Your task to perform on an android device: find which apps use the phone's location Image 0: 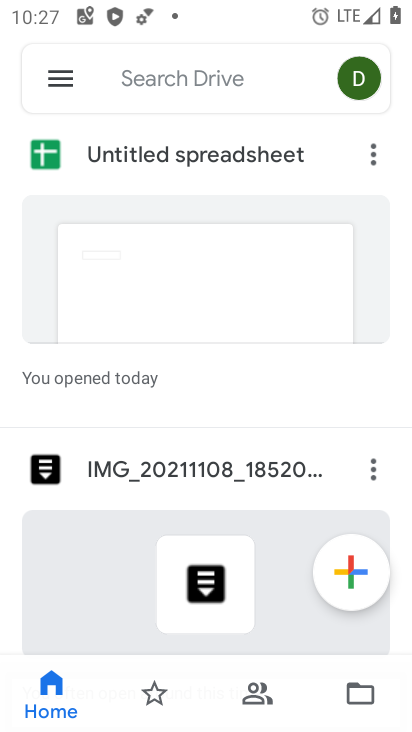
Step 0: press home button
Your task to perform on an android device: find which apps use the phone's location Image 1: 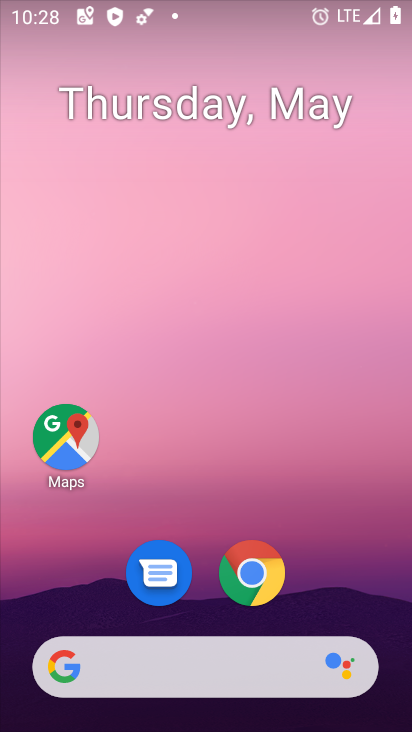
Step 1: drag from (214, 613) to (212, 168)
Your task to perform on an android device: find which apps use the phone's location Image 2: 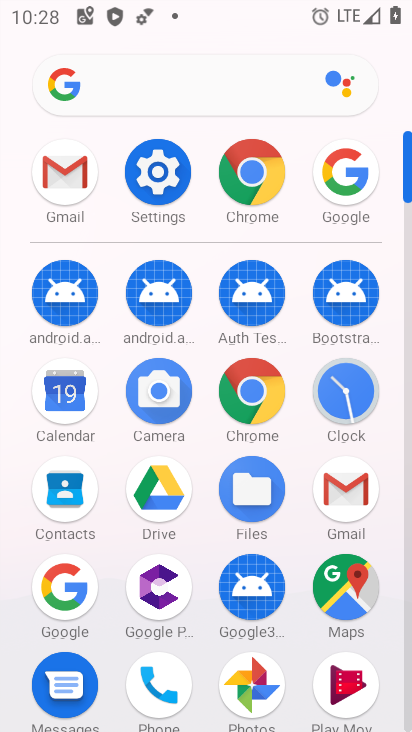
Step 2: click (177, 151)
Your task to perform on an android device: find which apps use the phone's location Image 3: 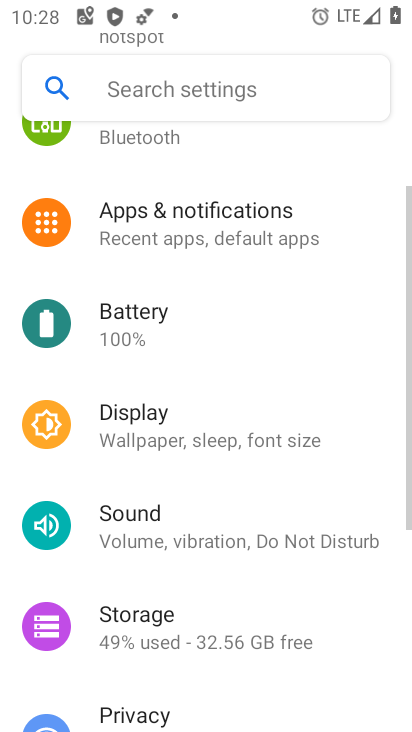
Step 3: drag from (160, 638) to (169, 336)
Your task to perform on an android device: find which apps use the phone's location Image 4: 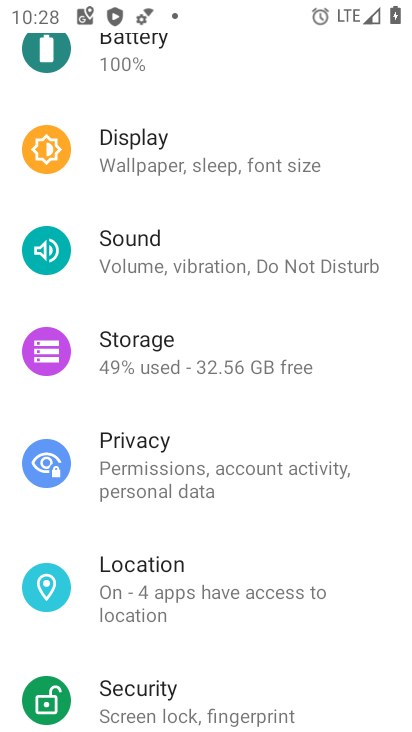
Step 4: click (120, 574)
Your task to perform on an android device: find which apps use the phone's location Image 5: 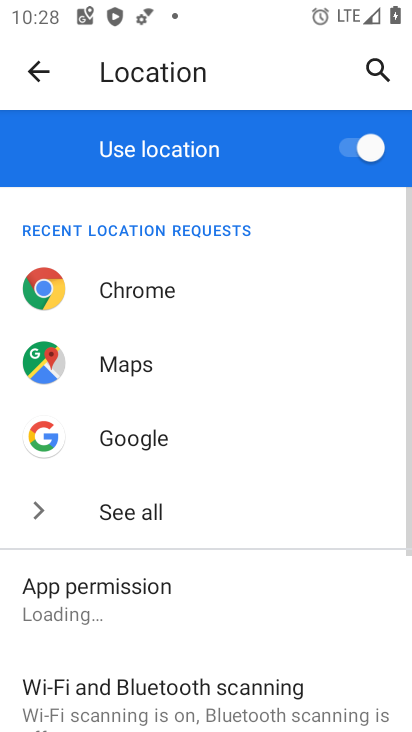
Step 5: click (158, 619)
Your task to perform on an android device: find which apps use the phone's location Image 6: 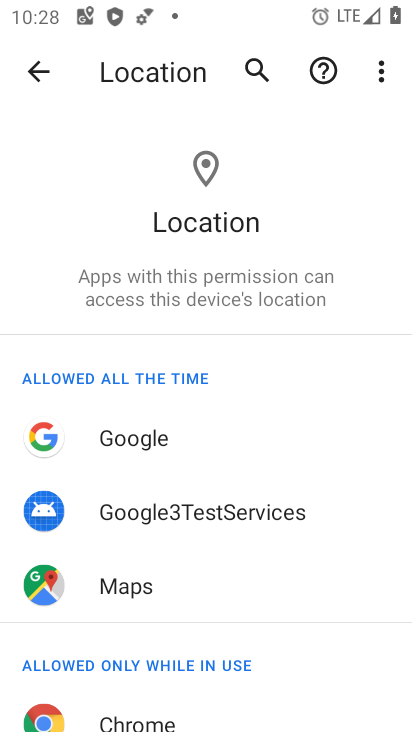
Step 6: task complete